Your task to perform on an android device: Check the weather Image 0: 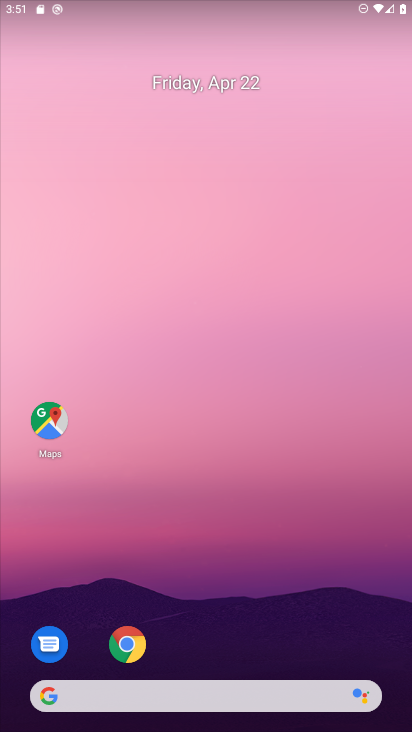
Step 0: drag from (219, 616) to (224, 67)
Your task to perform on an android device: Check the weather Image 1: 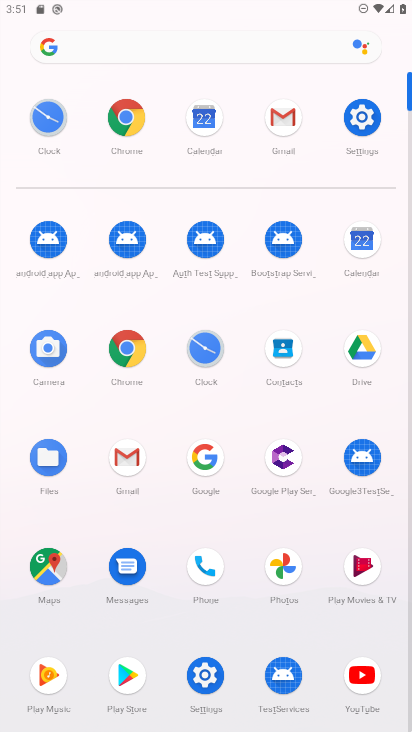
Step 1: click (130, 347)
Your task to perform on an android device: Check the weather Image 2: 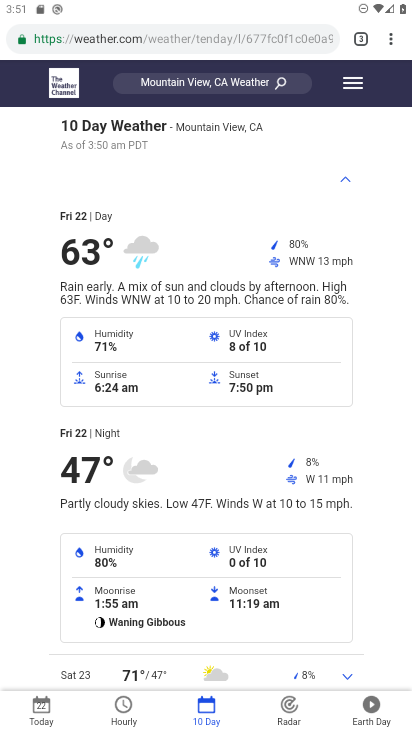
Step 2: task complete